Your task to perform on an android device: move an email to a new category in the gmail app Image 0: 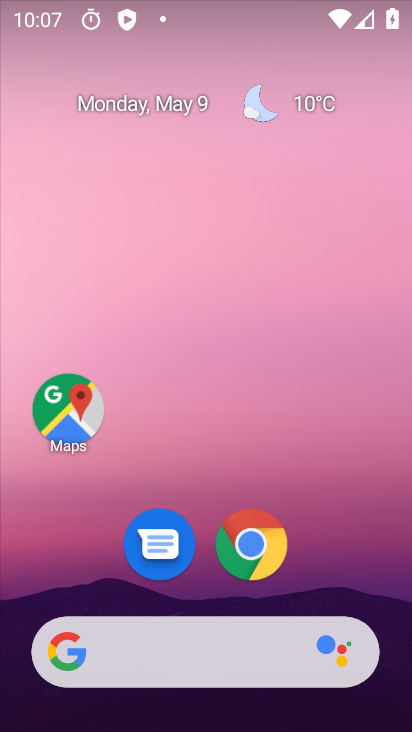
Step 0: drag from (384, 490) to (359, 289)
Your task to perform on an android device: move an email to a new category in the gmail app Image 1: 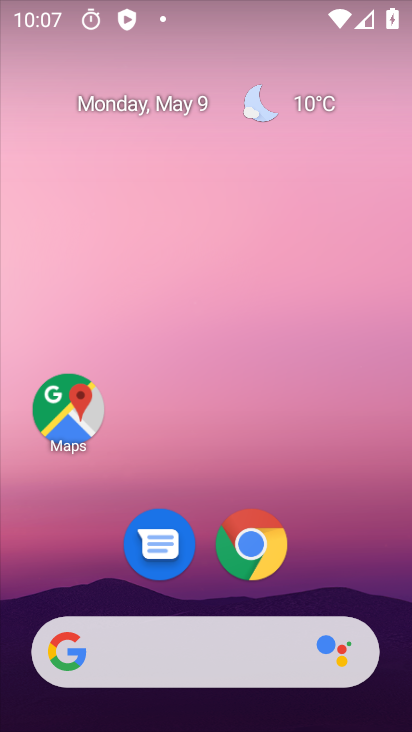
Step 1: drag from (411, 533) to (410, 215)
Your task to perform on an android device: move an email to a new category in the gmail app Image 2: 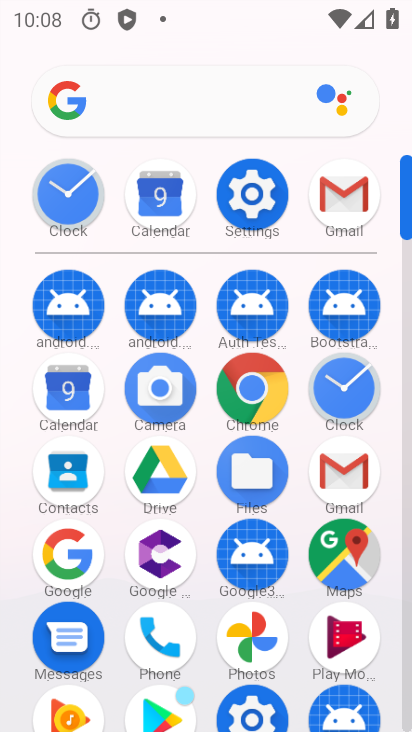
Step 2: click (356, 452)
Your task to perform on an android device: move an email to a new category in the gmail app Image 3: 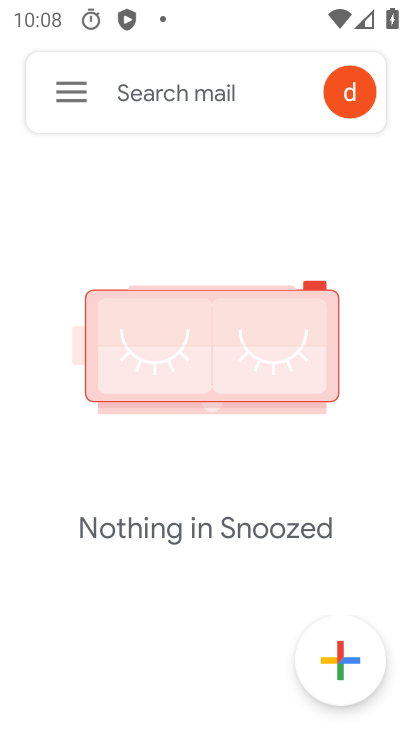
Step 3: click (70, 84)
Your task to perform on an android device: move an email to a new category in the gmail app Image 4: 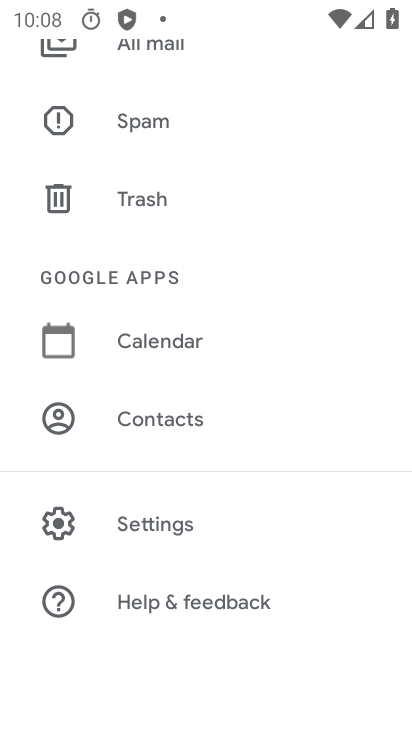
Step 4: drag from (316, 124) to (373, 610)
Your task to perform on an android device: move an email to a new category in the gmail app Image 5: 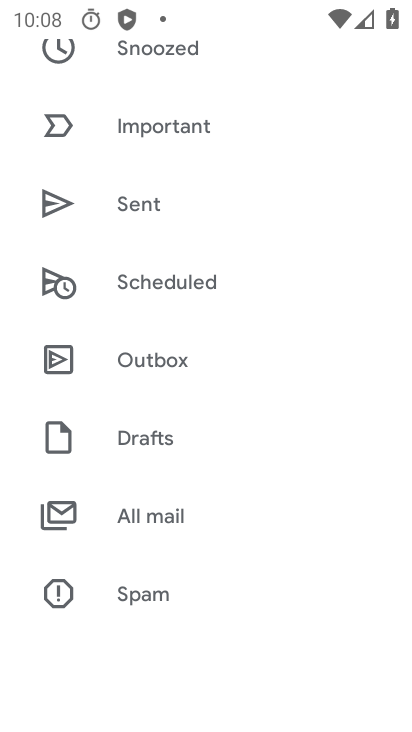
Step 5: drag from (338, 135) to (357, 596)
Your task to perform on an android device: move an email to a new category in the gmail app Image 6: 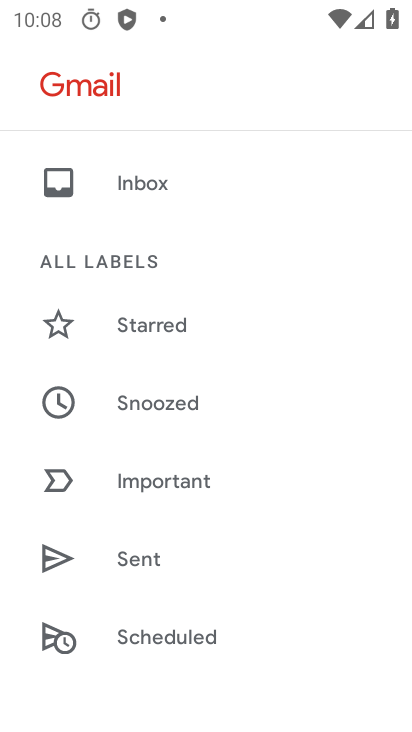
Step 6: click (335, 716)
Your task to perform on an android device: move an email to a new category in the gmail app Image 7: 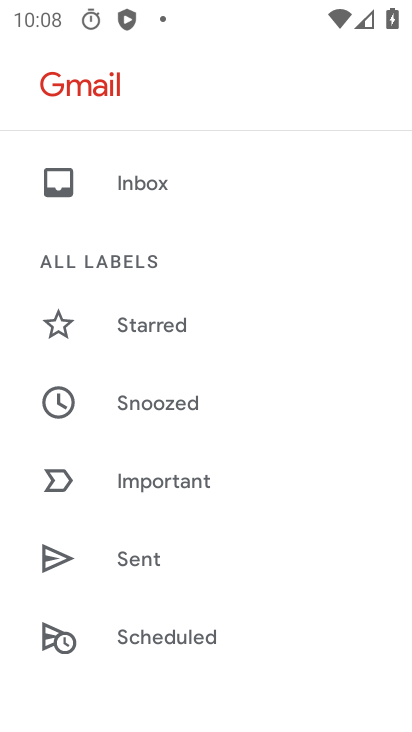
Step 7: click (118, 180)
Your task to perform on an android device: move an email to a new category in the gmail app Image 8: 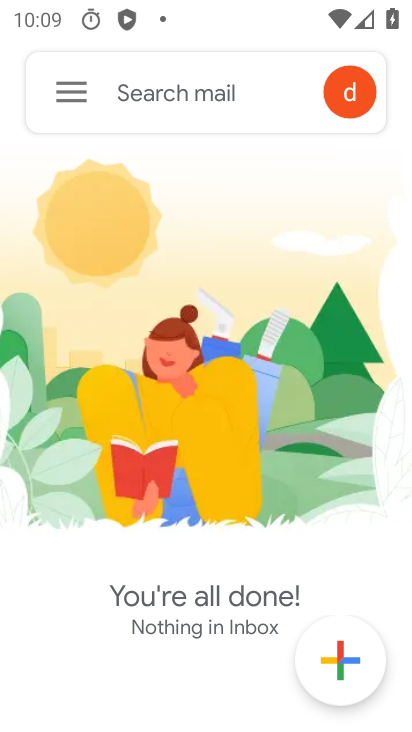
Step 8: task complete